Your task to perform on an android device: open chrome privacy settings Image 0: 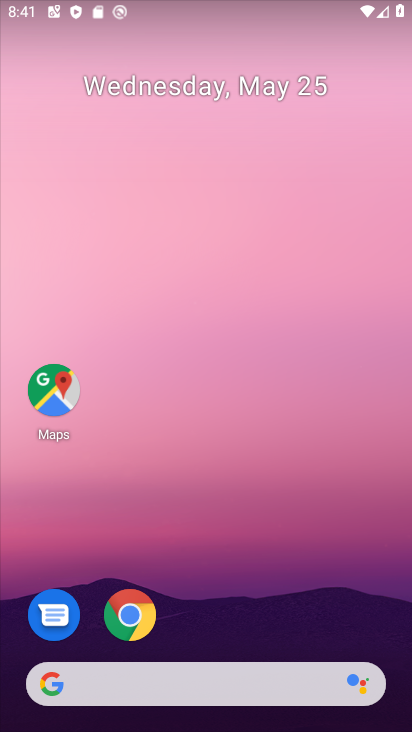
Step 0: drag from (123, 667) to (174, 35)
Your task to perform on an android device: open chrome privacy settings Image 1: 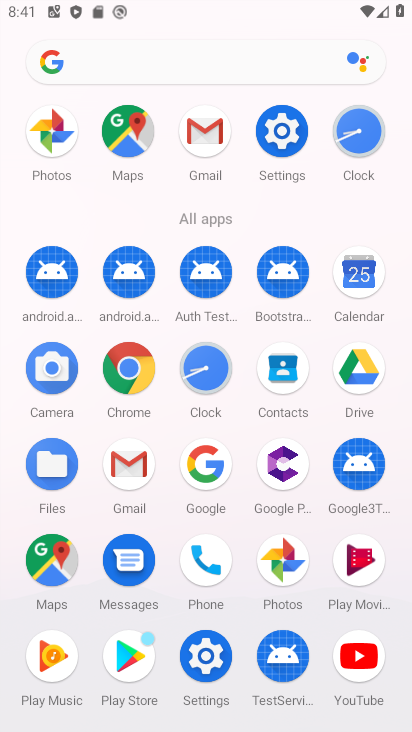
Step 1: click (114, 365)
Your task to perform on an android device: open chrome privacy settings Image 2: 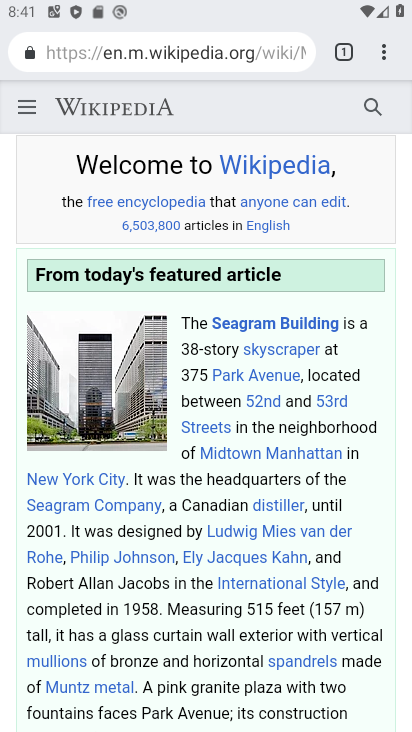
Step 2: click (379, 58)
Your task to perform on an android device: open chrome privacy settings Image 3: 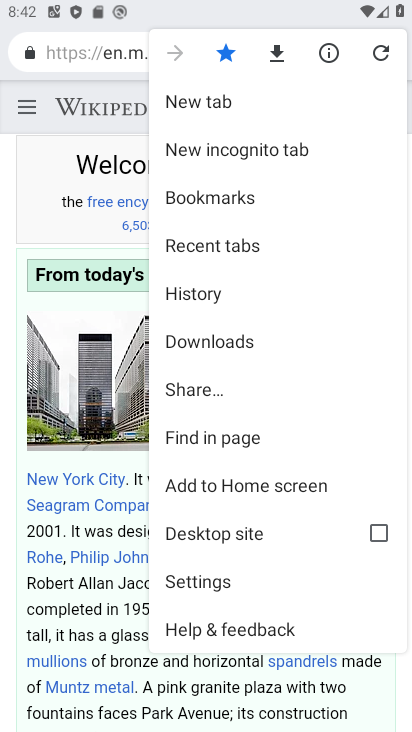
Step 3: click (241, 590)
Your task to perform on an android device: open chrome privacy settings Image 4: 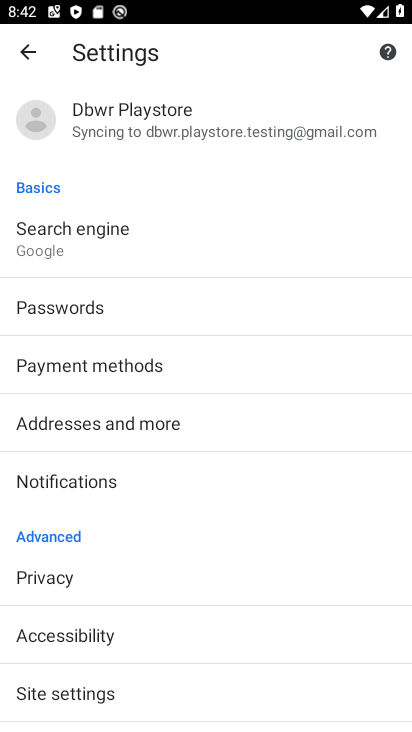
Step 4: click (81, 591)
Your task to perform on an android device: open chrome privacy settings Image 5: 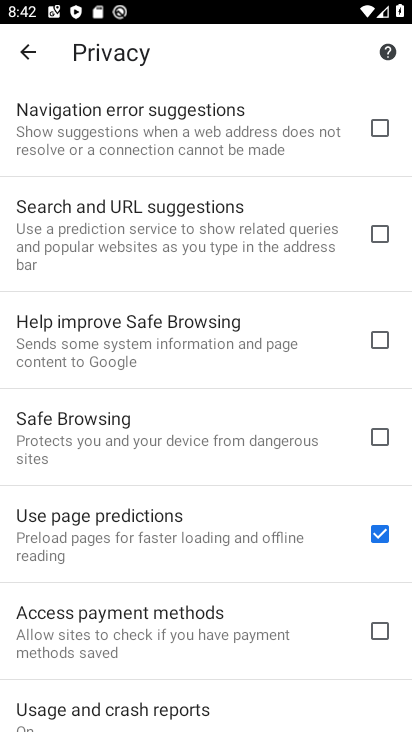
Step 5: task complete